Your task to perform on an android device: Check the settings for the Google Maps app Image 0: 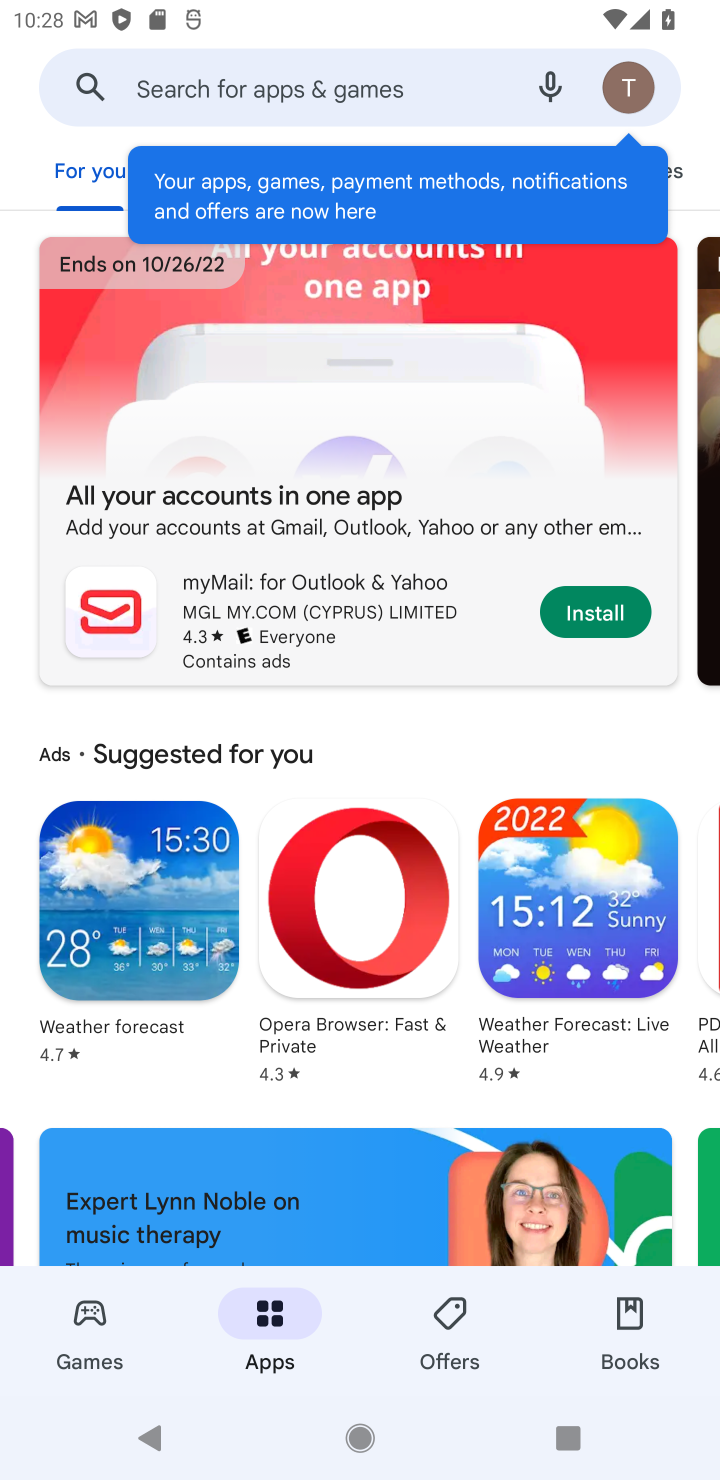
Step 0: press home button
Your task to perform on an android device: Check the settings for the Google Maps app Image 1: 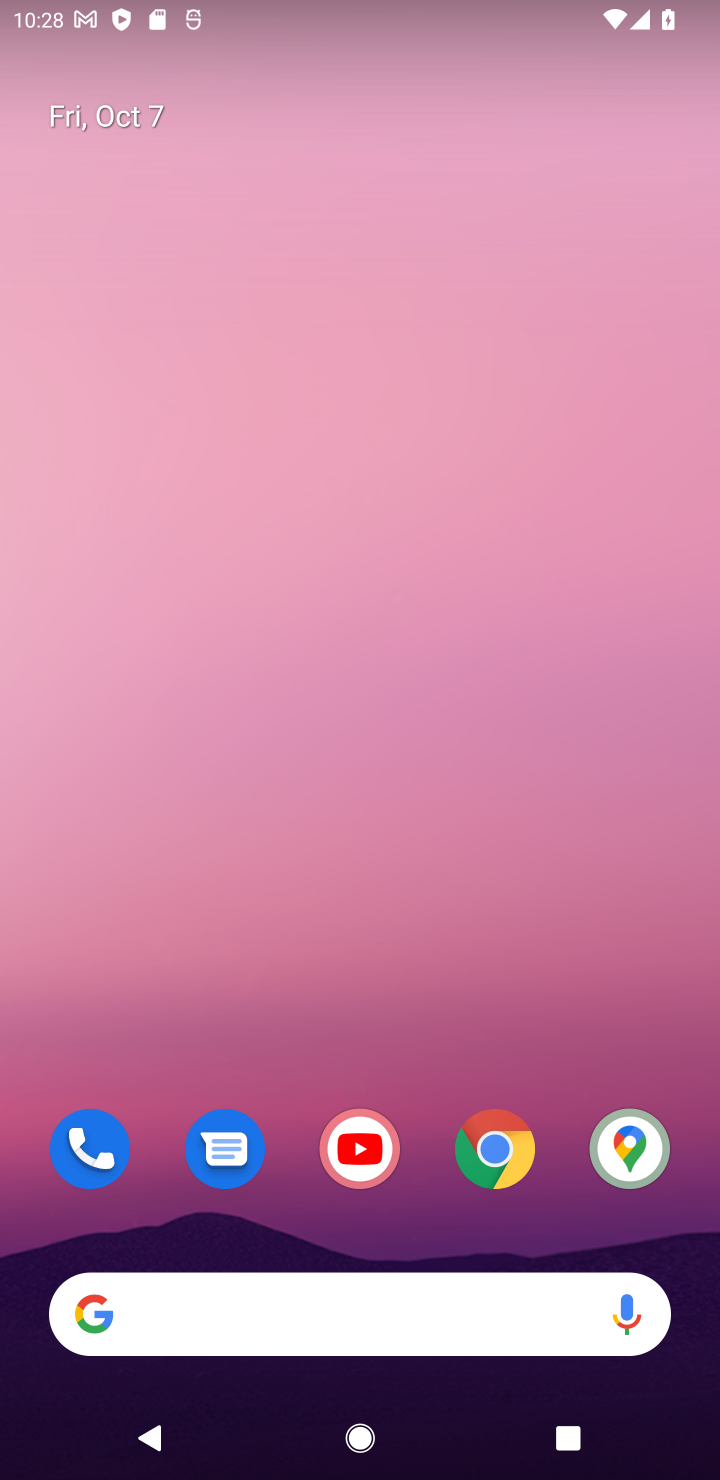
Step 1: click (653, 1162)
Your task to perform on an android device: Check the settings for the Google Maps app Image 2: 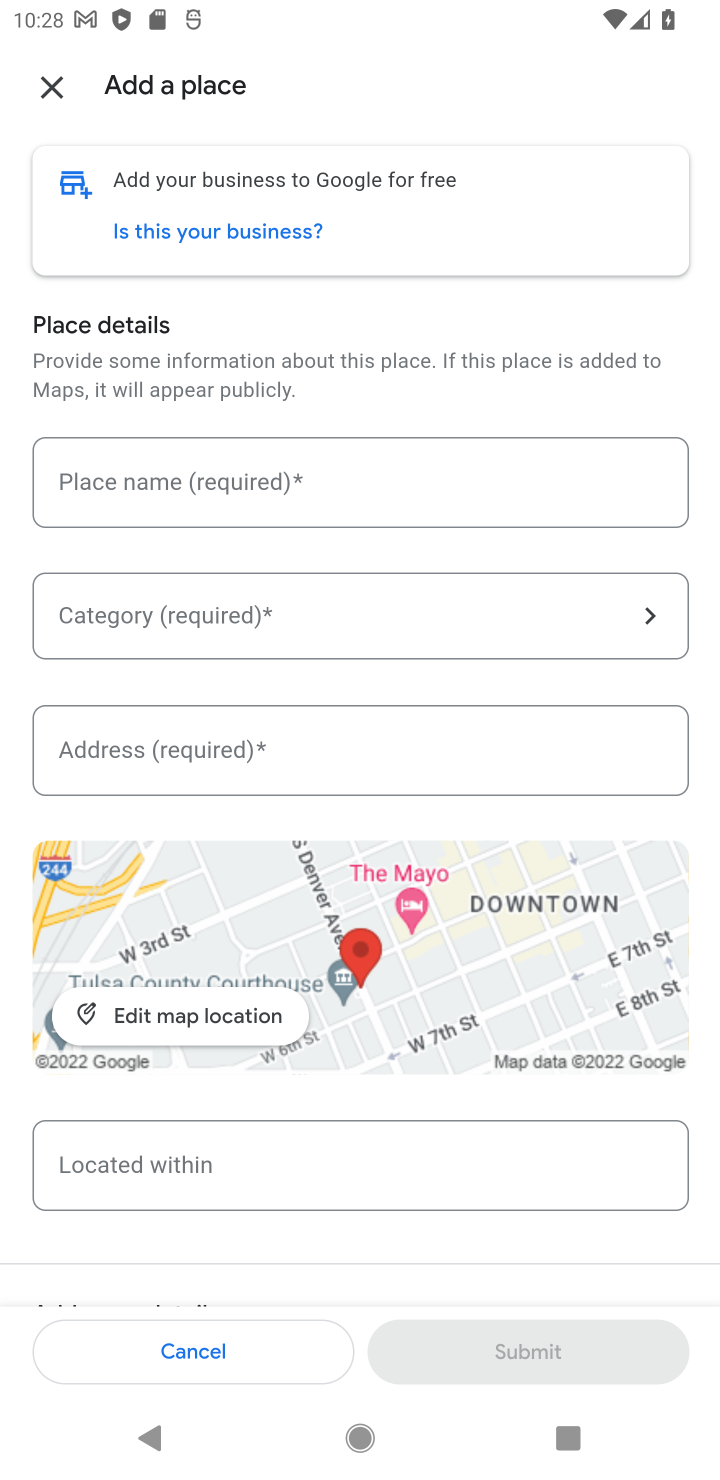
Step 2: click (38, 89)
Your task to perform on an android device: Check the settings for the Google Maps app Image 3: 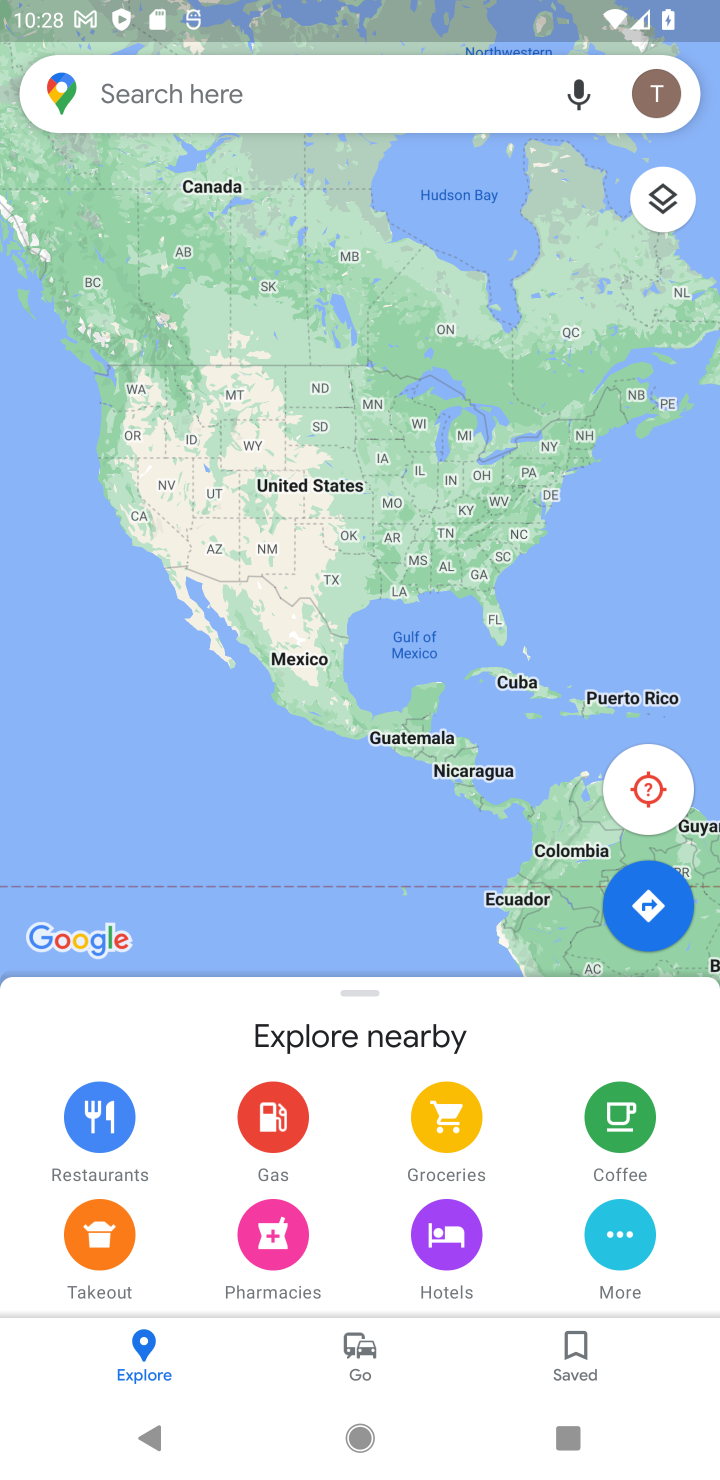
Step 3: click (658, 106)
Your task to perform on an android device: Check the settings for the Google Maps app Image 4: 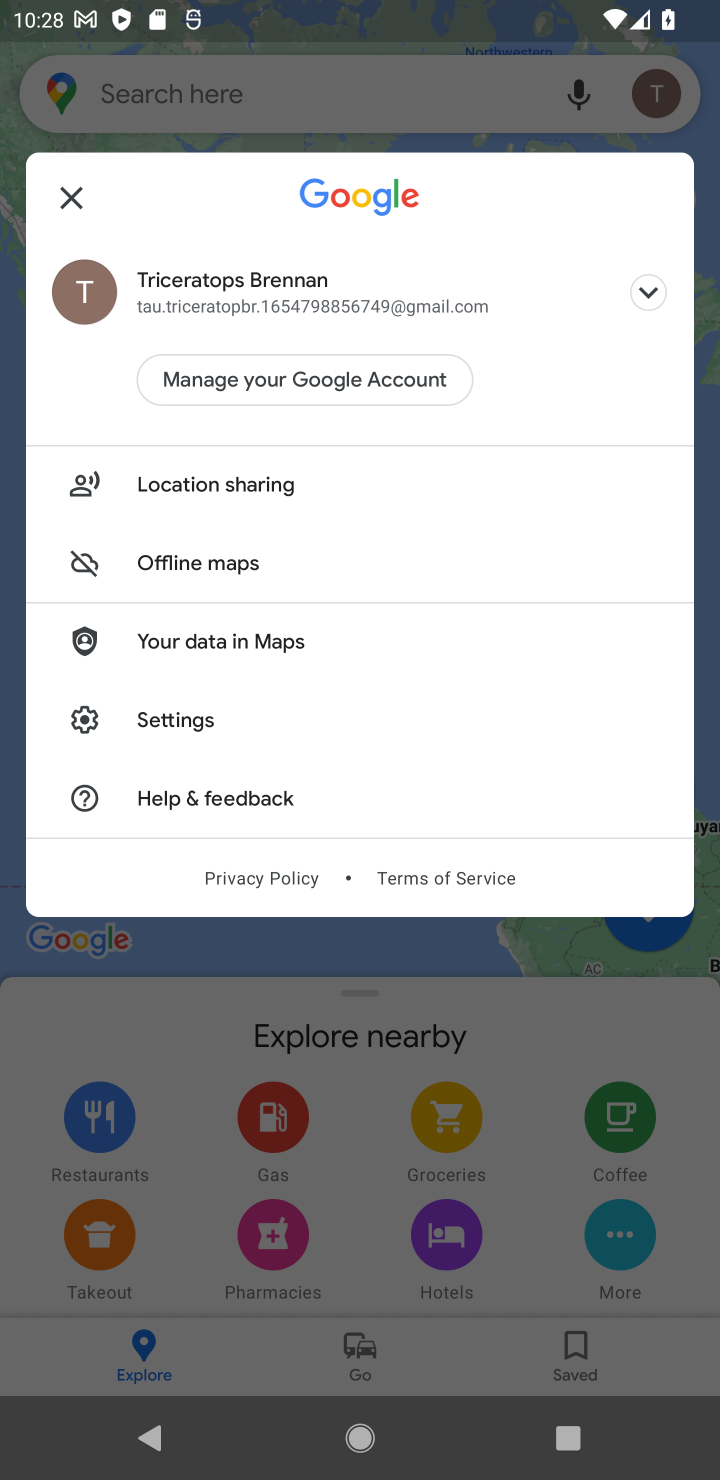
Step 4: click (290, 728)
Your task to perform on an android device: Check the settings for the Google Maps app Image 5: 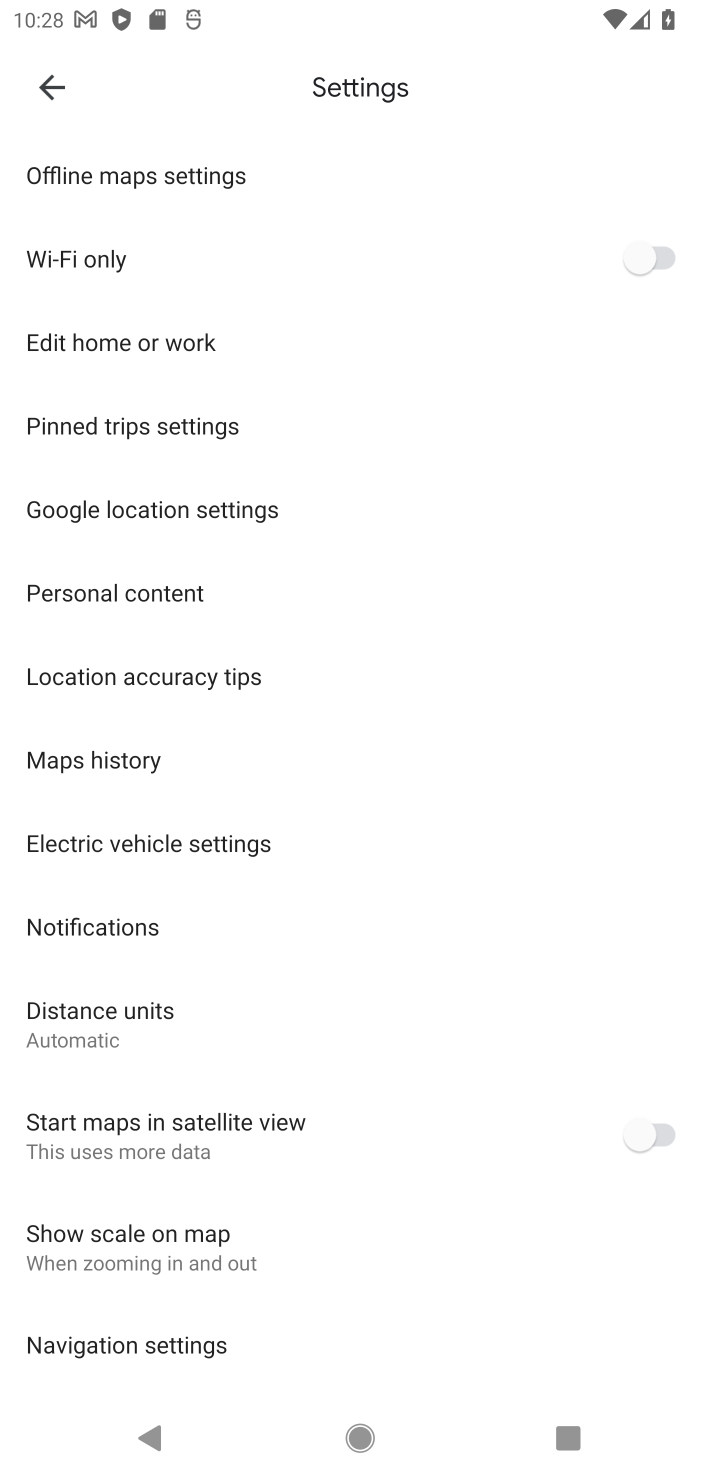
Step 5: task complete